Your task to perform on an android device: turn off javascript in the chrome app Image 0: 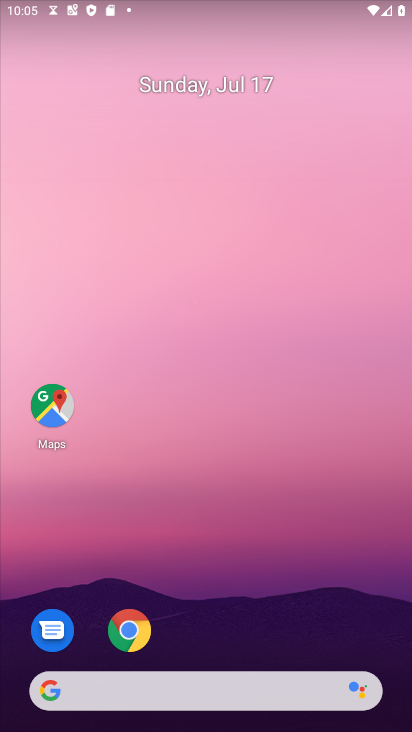
Step 0: drag from (294, 686) to (317, 35)
Your task to perform on an android device: turn off javascript in the chrome app Image 1: 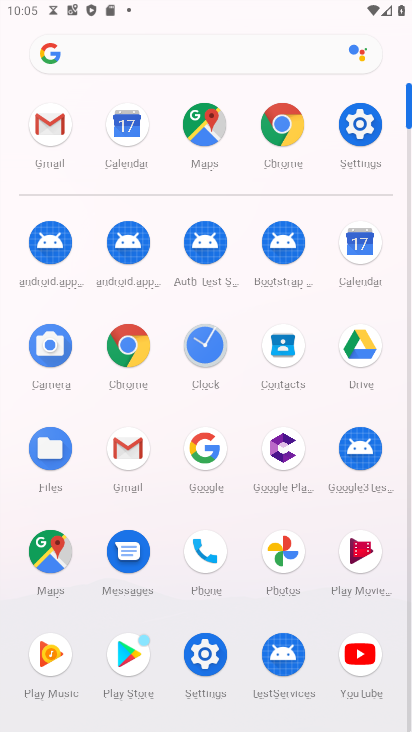
Step 1: click (138, 351)
Your task to perform on an android device: turn off javascript in the chrome app Image 2: 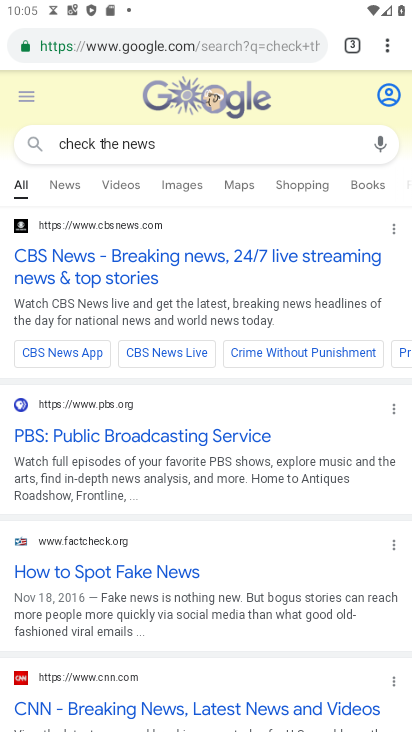
Step 2: drag from (390, 43) to (244, 503)
Your task to perform on an android device: turn off javascript in the chrome app Image 3: 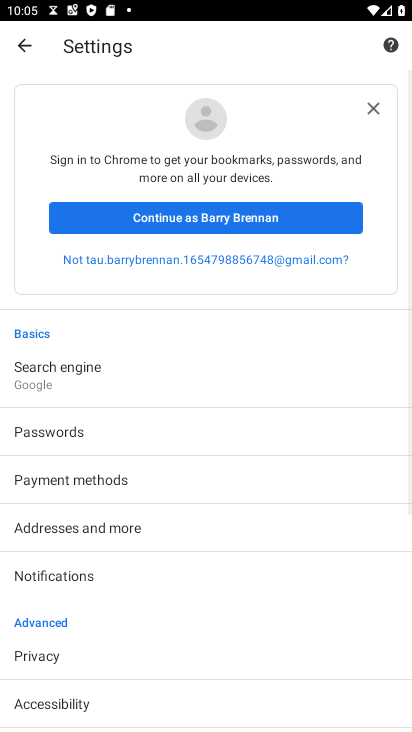
Step 3: drag from (107, 603) to (117, 60)
Your task to perform on an android device: turn off javascript in the chrome app Image 4: 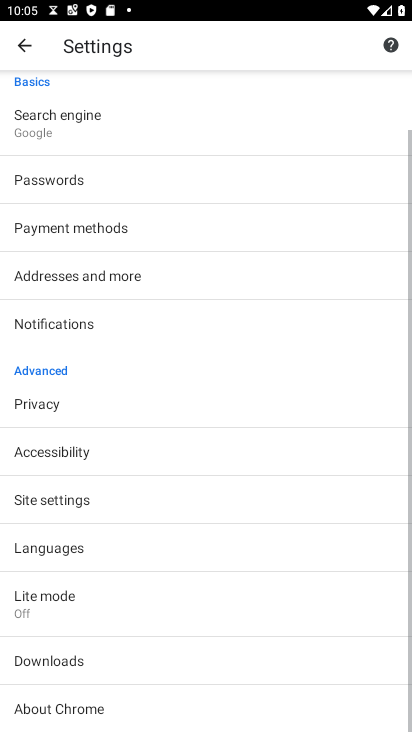
Step 4: click (113, 497)
Your task to perform on an android device: turn off javascript in the chrome app Image 5: 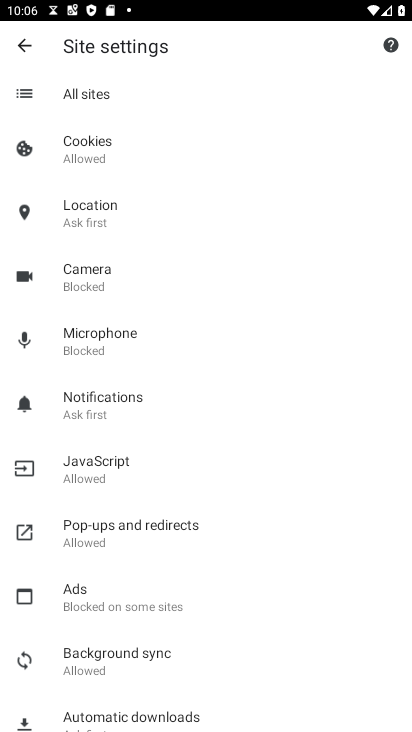
Step 5: click (118, 478)
Your task to perform on an android device: turn off javascript in the chrome app Image 6: 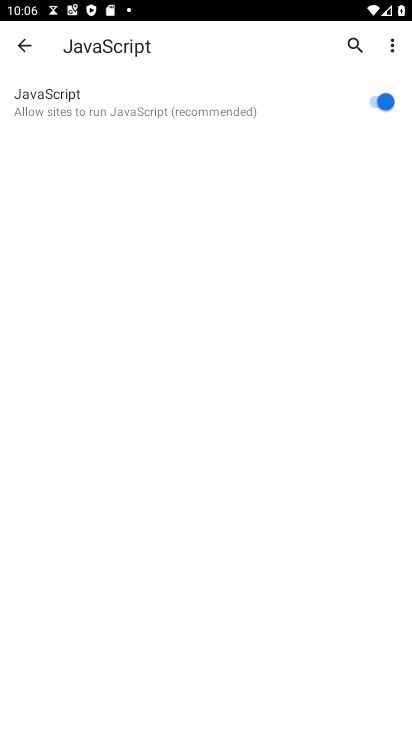
Step 6: click (381, 99)
Your task to perform on an android device: turn off javascript in the chrome app Image 7: 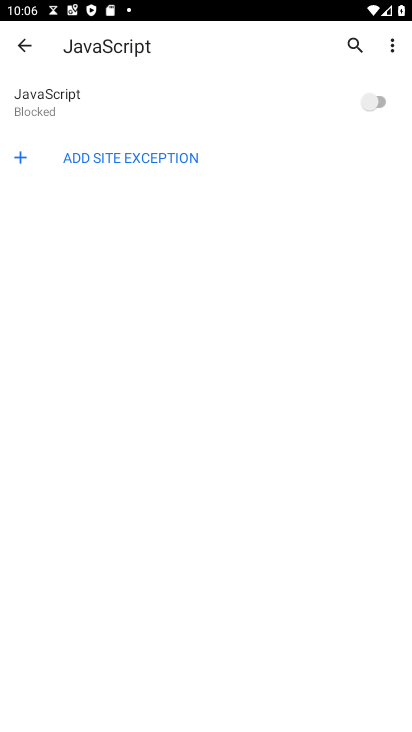
Step 7: task complete